Your task to perform on an android device: check android version Image 0: 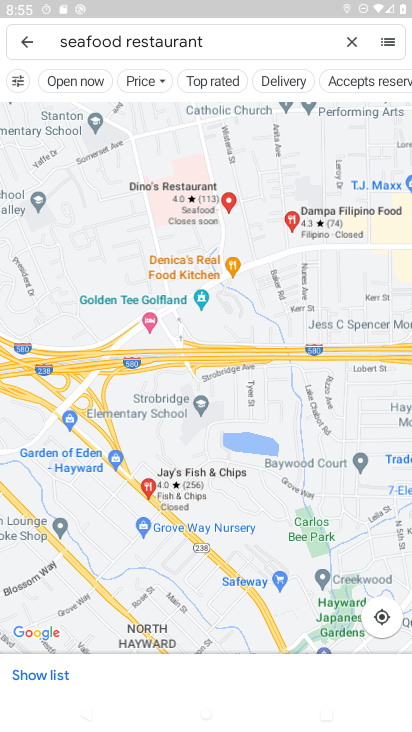
Step 0: press back button
Your task to perform on an android device: check android version Image 1: 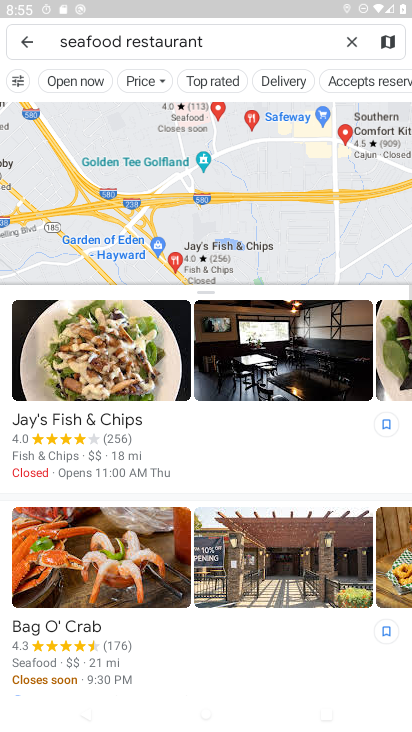
Step 1: press home button
Your task to perform on an android device: check android version Image 2: 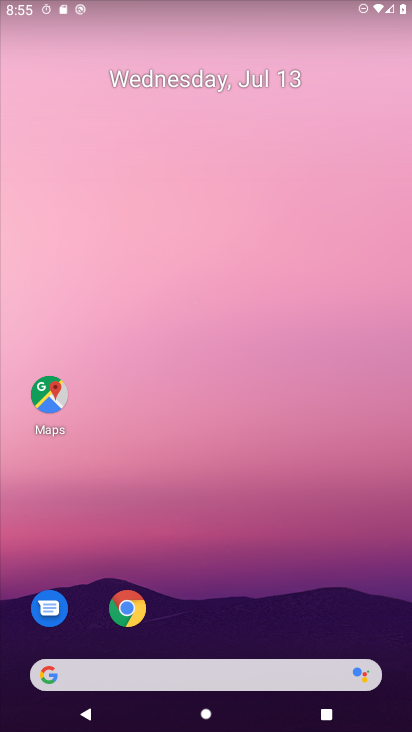
Step 2: drag from (264, 615) to (189, 78)
Your task to perform on an android device: check android version Image 3: 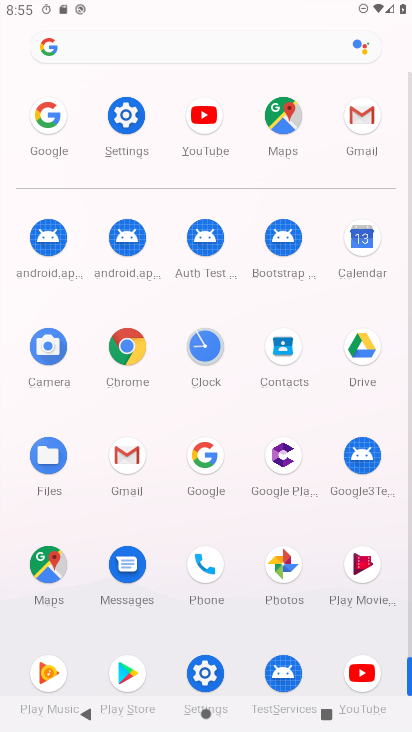
Step 3: click (206, 676)
Your task to perform on an android device: check android version Image 4: 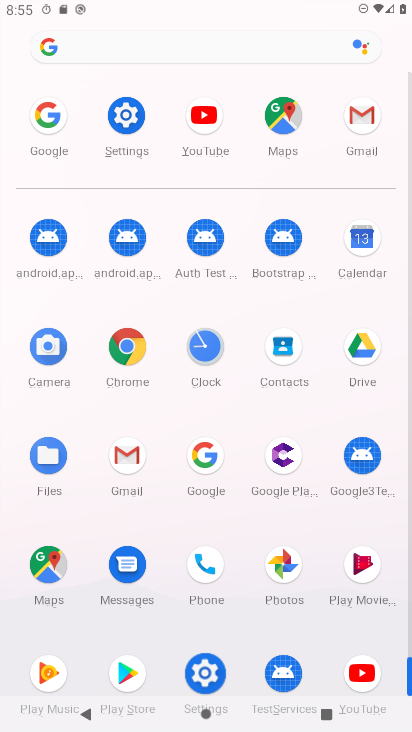
Step 4: click (206, 676)
Your task to perform on an android device: check android version Image 5: 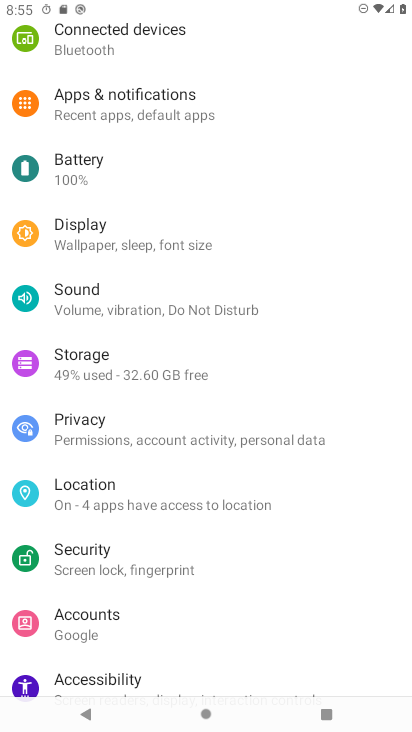
Step 5: drag from (190, 605) to (181, 279)
Your task to perform on an android device: check android version Image 6: 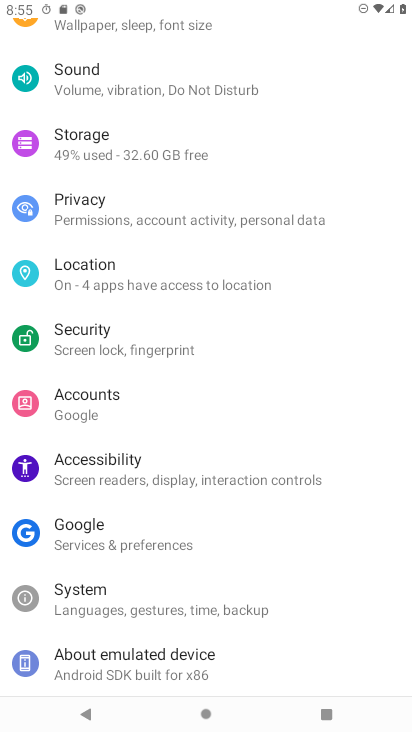
Step 6: drag from (157, 622) to (113, 295)
Your task to perform on an android device: check android version Image 7: 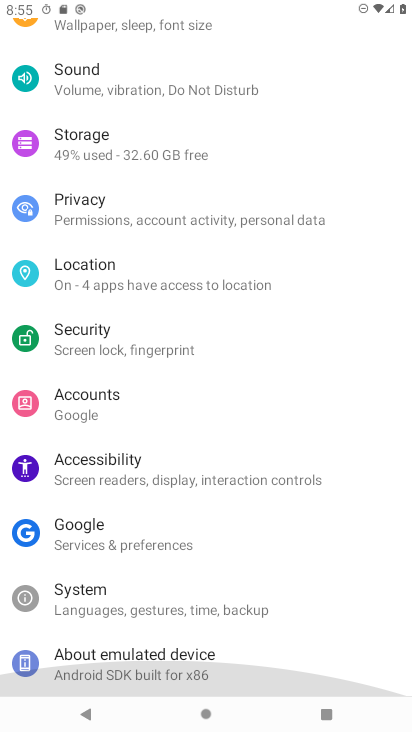
Step 7: drag from (120, 568) to (102, 311)
Your task to perform on an android device: check android version Image 8: 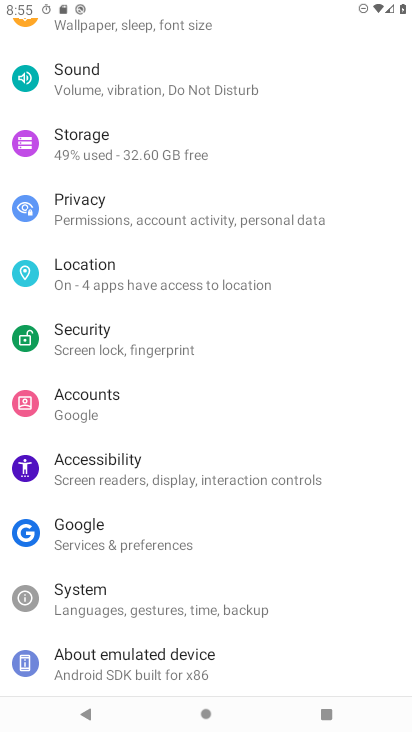
Step 8: click (82, 651)
Your task to perform on an android device: check android version Image 9: 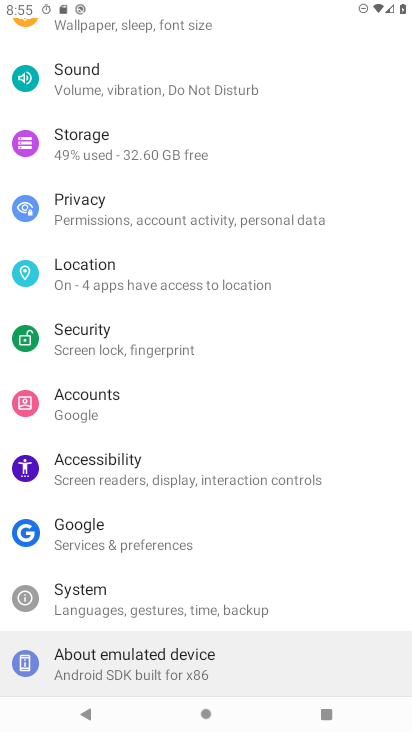
Step 9: click (87, 650)
Your task to perform on an android device: check android version Image 10: 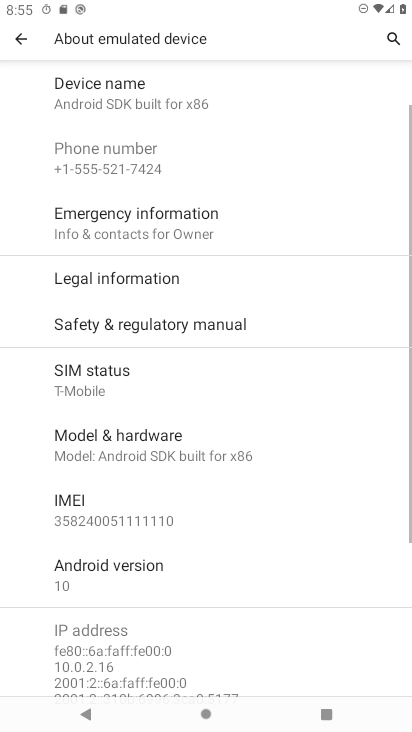
Step 10: click (98, 240)
Your task to perform on an android device: check android version Image 11: 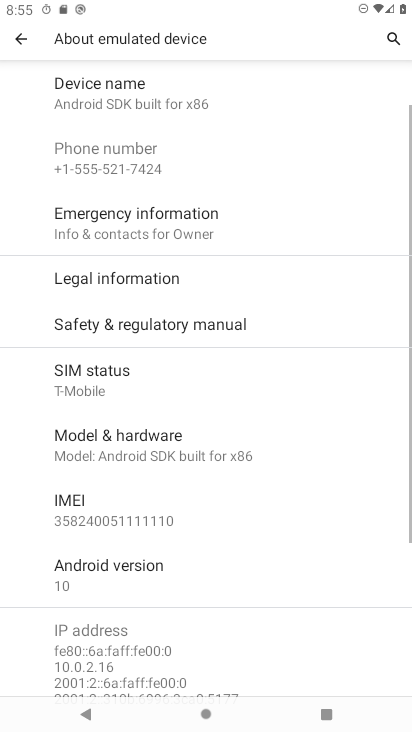
Step 11: task complete